Your task to perform on an android device: toggle data saver in the chrome app Image 0: 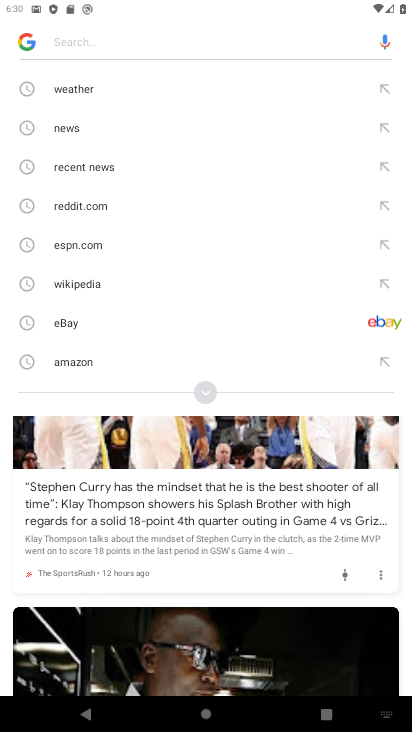
Step 0: press home button
Your task to perform on an android device: toggle data saver in the chrome app Image 1: 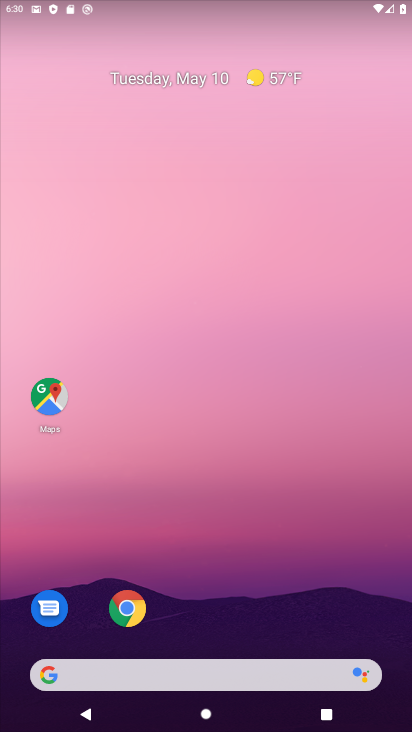
Step 1: click (135, 604)
Your task to perform on an android device: toggle data saver in the chrome app Image 2: 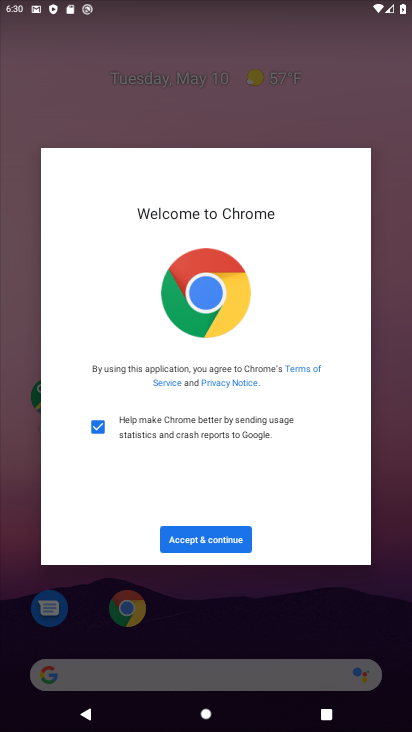
Step 2: click (204, 543)
Your task to perform on an android device: toggle data saver in the chrome app Image 3: 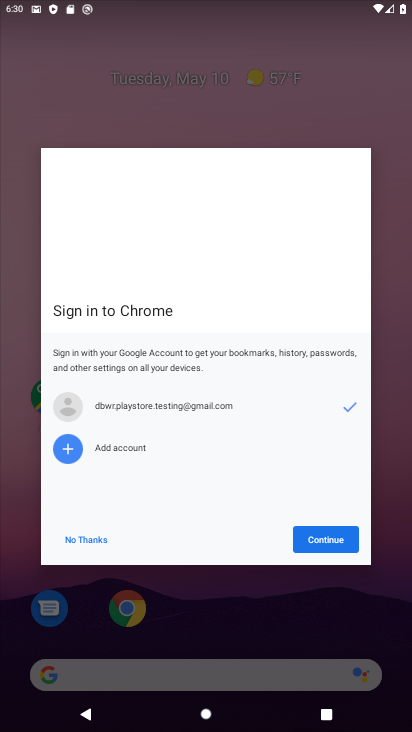
Step 3: click (318, 541)
Your task to perform on an android device: toggle data saver in the chrome app Image 4: 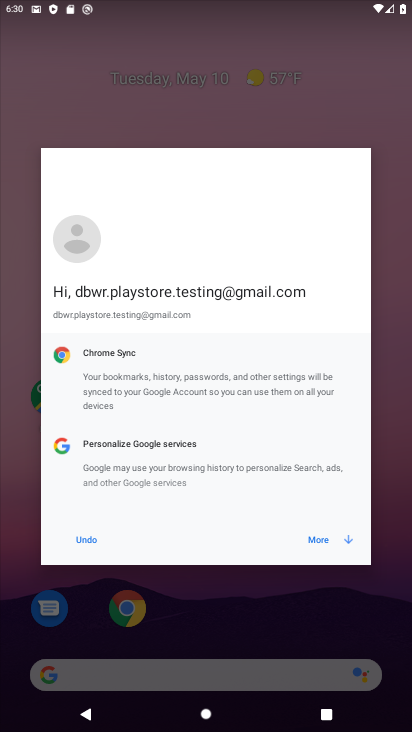
Step 4: click (318, 541)
Your task to perform on an android device: toggle data saver in the chrome app Image 5: 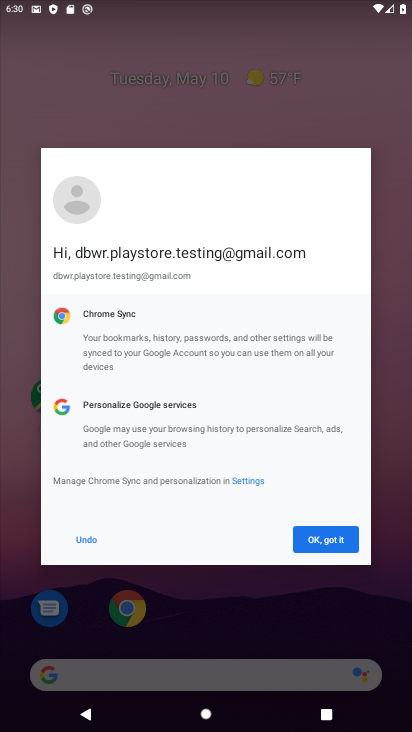
Step 5: click (318, 541)
Your task to perform on an android device: toggle data saver in the chrome app Image 6: 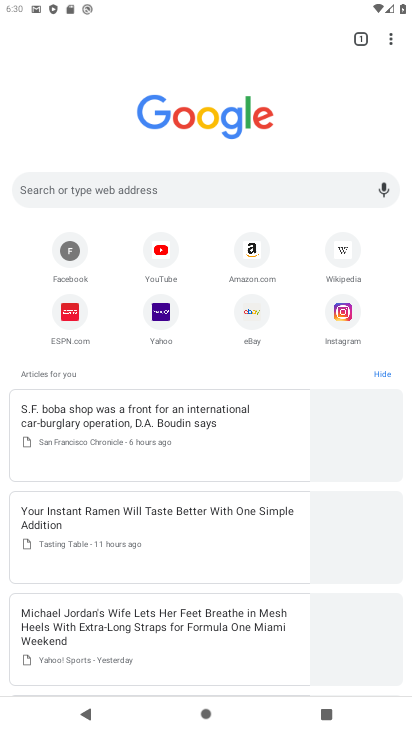
Step 6: click (391, 38)
Your task to perform on an android device: toggle data saver in the chrome app Image 7: 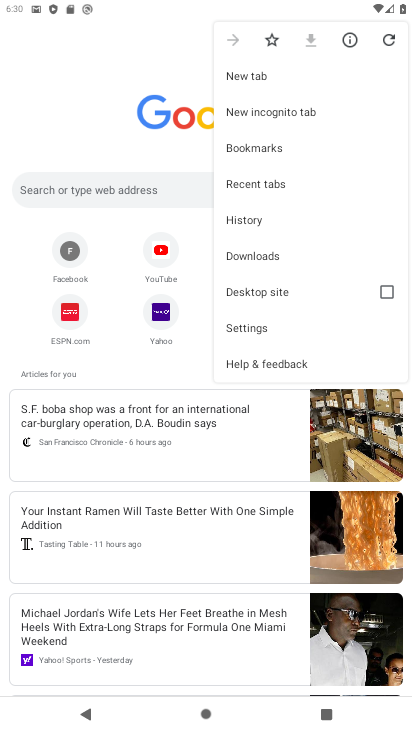
Step 7: click (252, 333)
Your task to perform on an android device: toggle data saver in the chrome app Image 8: 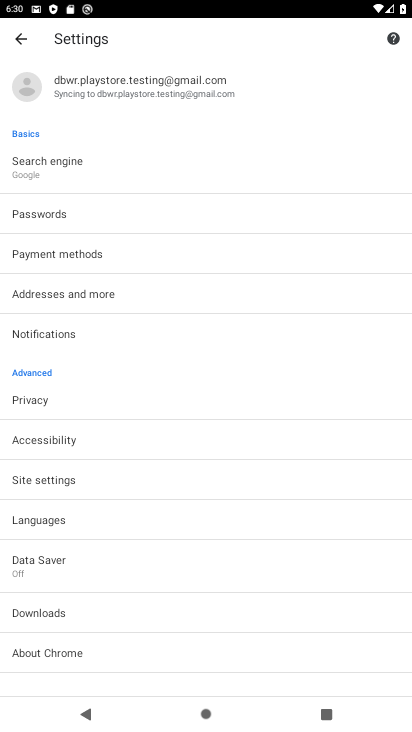
Step 8: click (103, 576)
Your task to perform on an android device: toggle data saver in the chrome app Image 9: 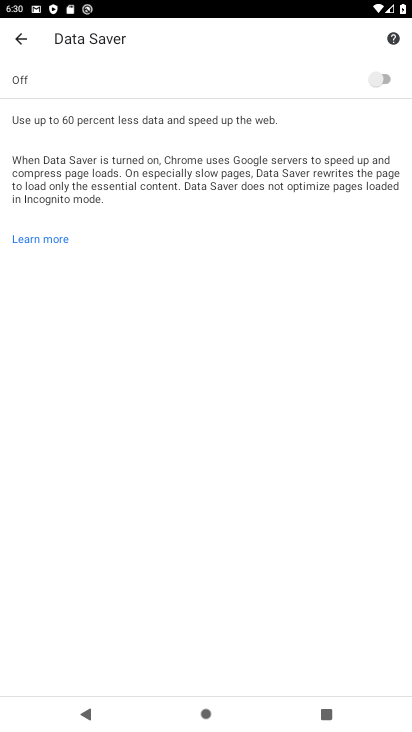
Step 9: click (362, 77)
Your task to perform on an android device: toggle data saver in the chrome app Image 10: 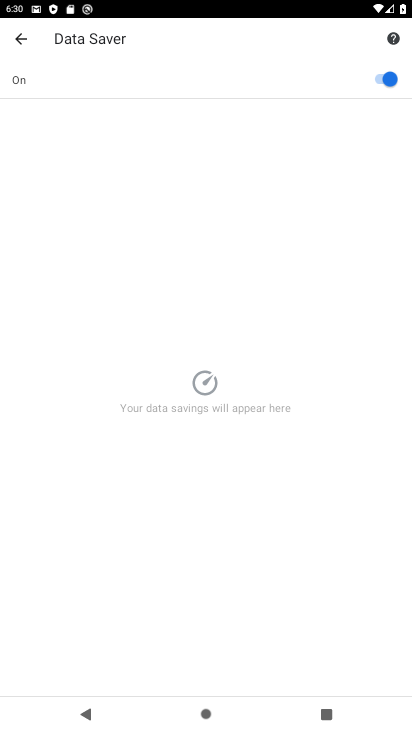
Step 10: task complete